Your task to perform on an android device: open the mobile data screen to see how much data has been used Image 0: 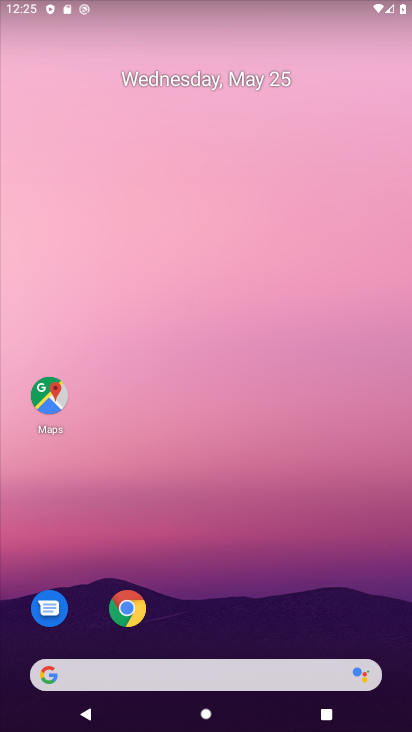
Step 0: drag from (140, 686) to (183, 57)
Your task to perform on an android device: open the mobile data screen to see how much data has been used Image 1: 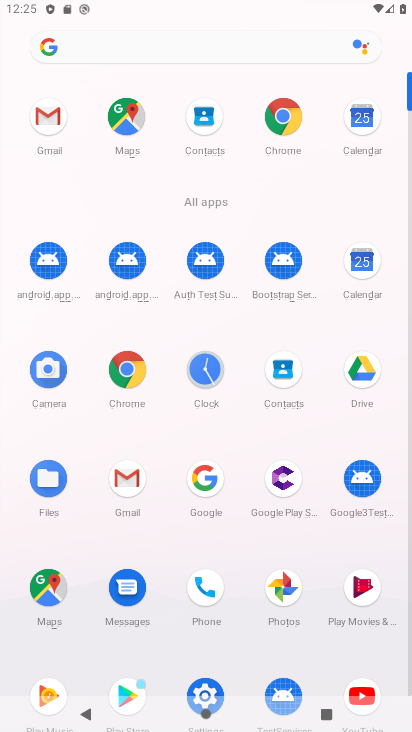
Step 1: click (193, 687)
Your task to perform on an android device: open the mobile data screen to see how much data has been used Image 2: 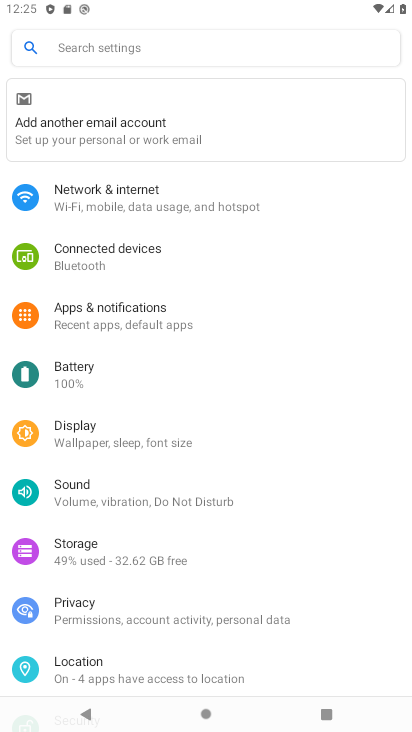
Step 2: click (163, 197)
Your task to perform on an android device: open the mobile data screen to see how much data has been used Image 3: 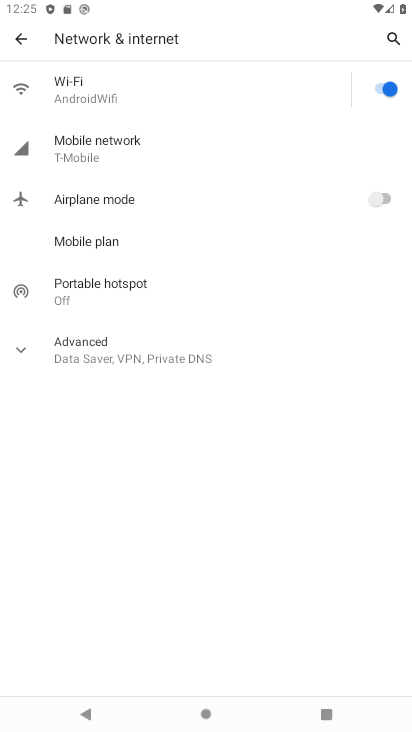
Step 3: click (185, 146)
Your task to perform on an android device: open the mobile data screen to see how much data has been used Image 4: 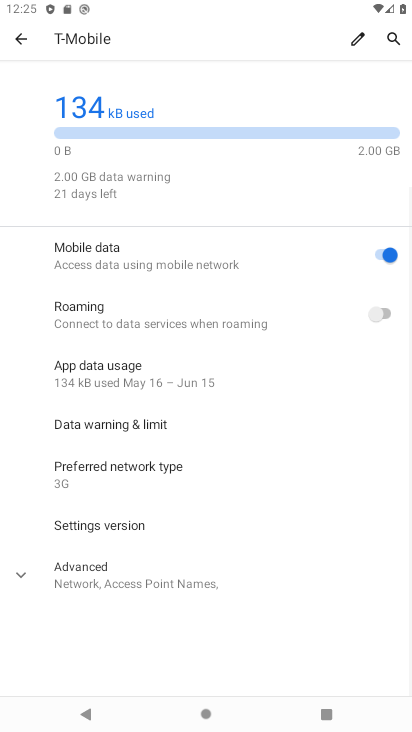
Step 4: task complete